Your task to perform on an android device: toggle data saver in the chrome app Image 0: 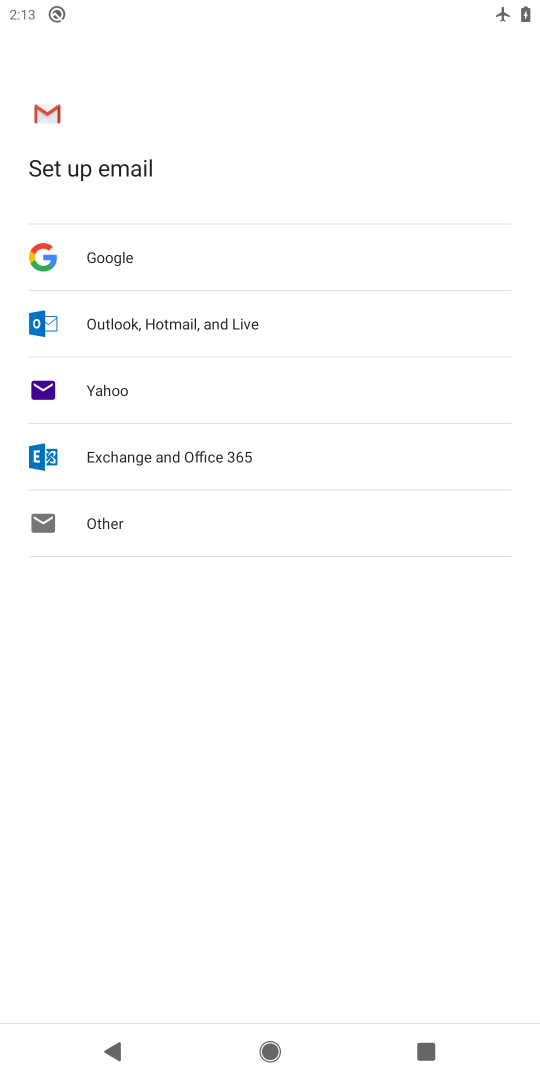
Step 0: press home button
Your task to perform on an android device: toggle data saver in the chrome app Image 1: 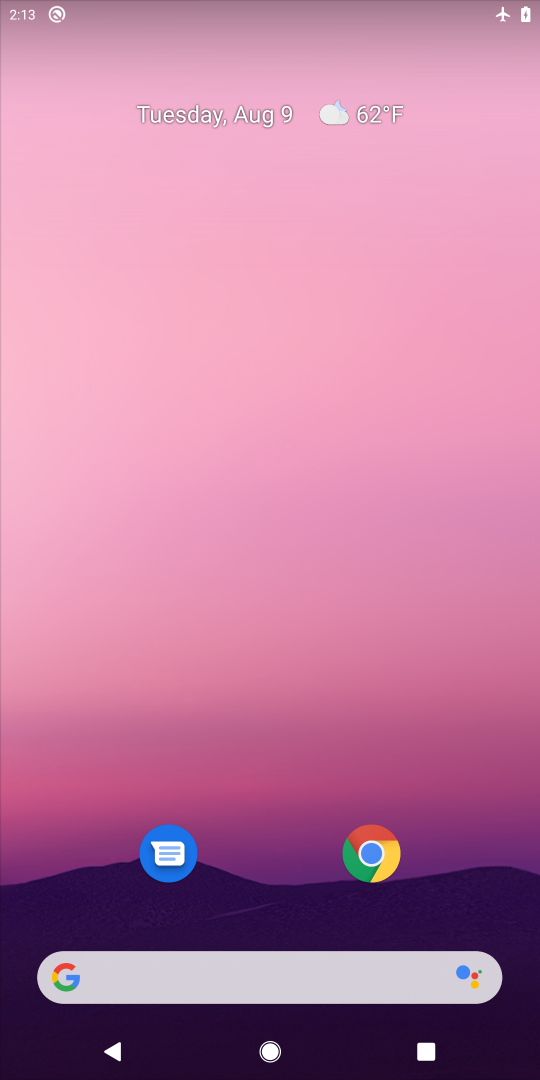
Step 1: drag from (248, 839) to (211, 242)
Your task to perform on an android device: toggle data saver in the chrome app Image 2: 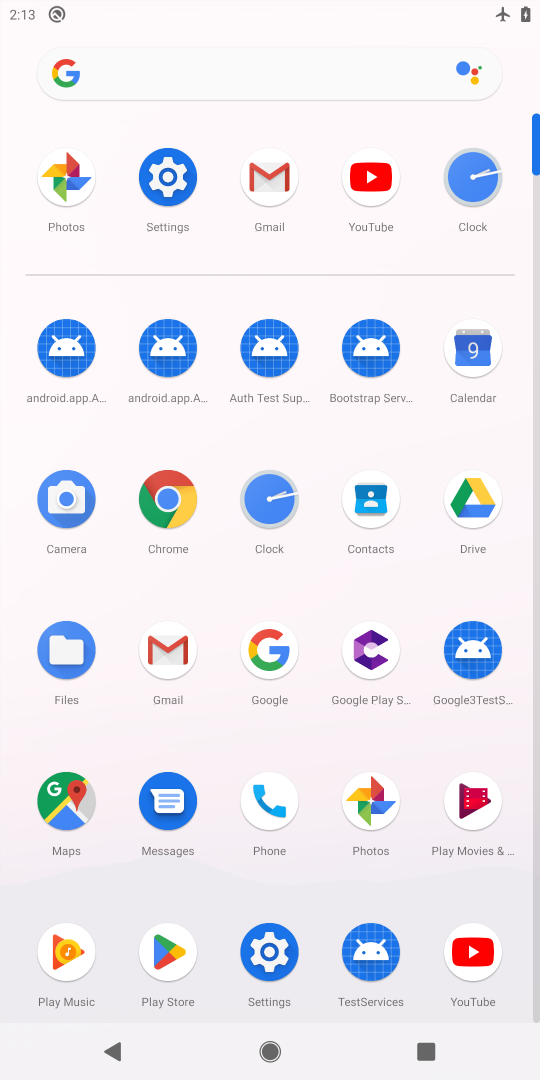
Step 2: click (156, 516)
Your task to perform on an android device: toggle data saver in the chrome app Image 3: 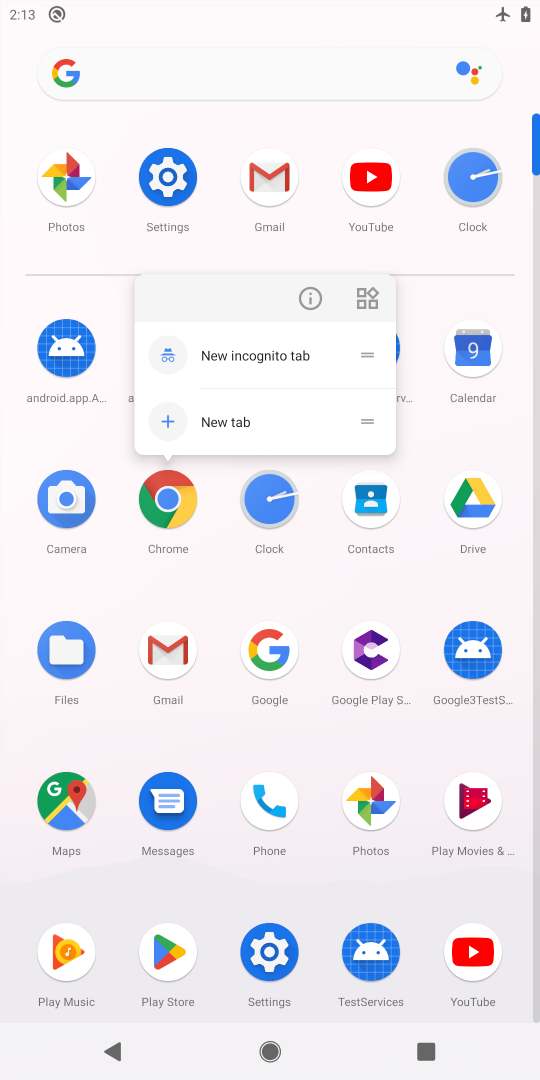
Step 3: click (157, 541)
Your task to perform on an android device: toggle data saver in the chrome app Image 4: 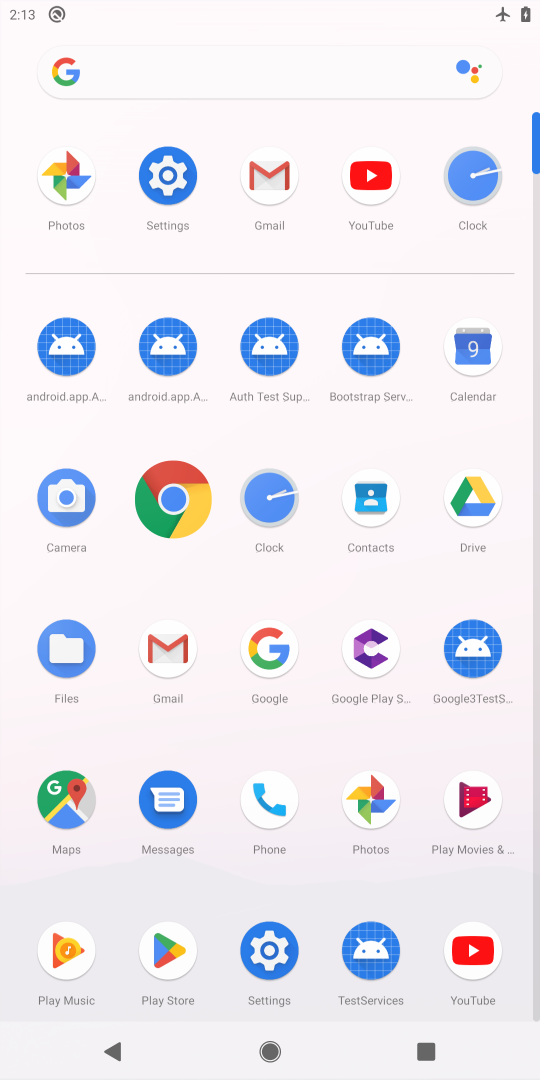
Step 4: click (155, 515)
Your task to perform on an android device: toggle data saver in the chrome app Image 5: 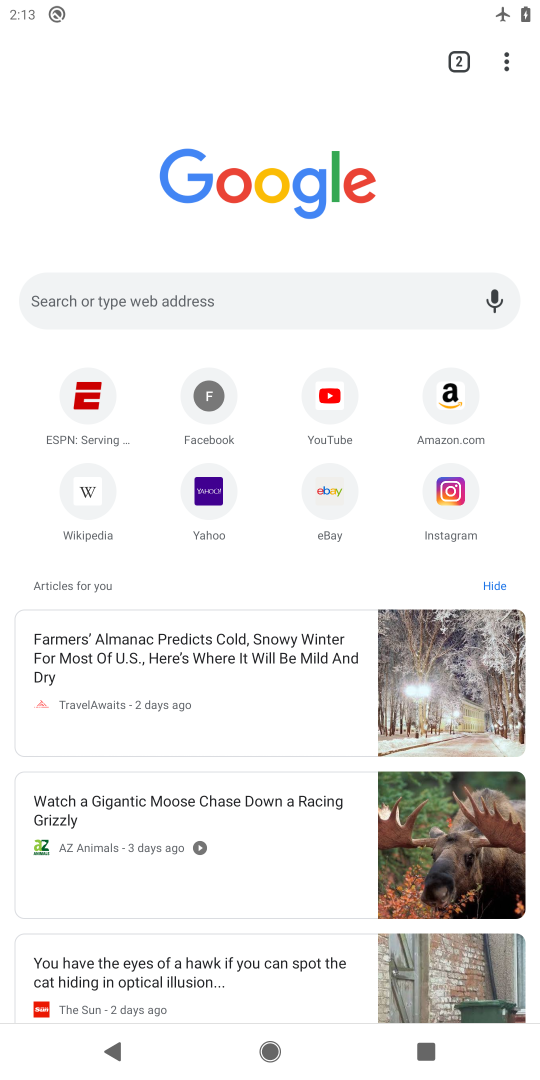
Step 5: click (148, 515)
Your task to perform on an android device: toggle data saver in the chrome app Image 6: 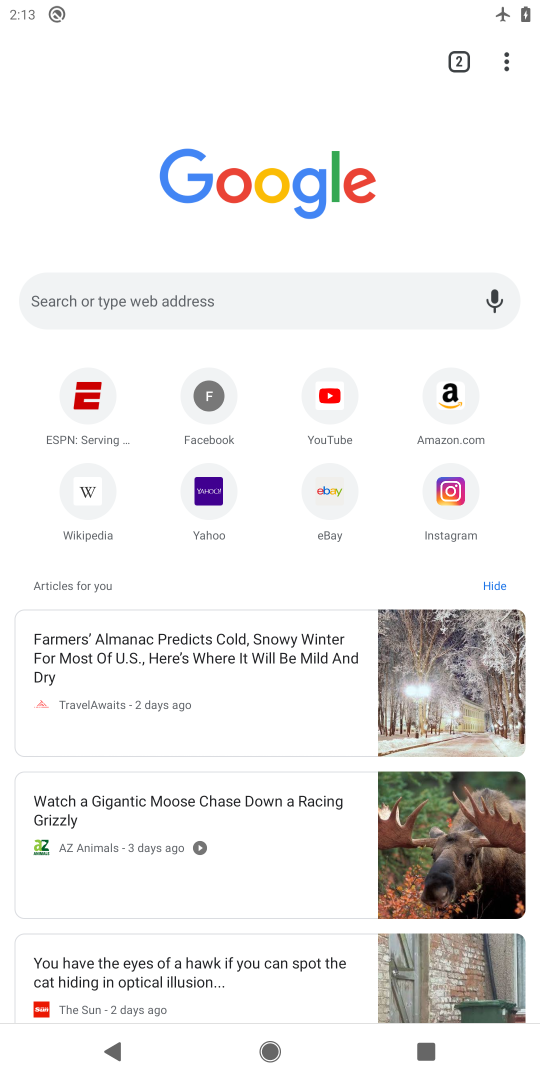
Step 6: drag from (504, 45) to (284, 579)
Your task to perform on an android device: toggle data saver in the chrome app Image 7: 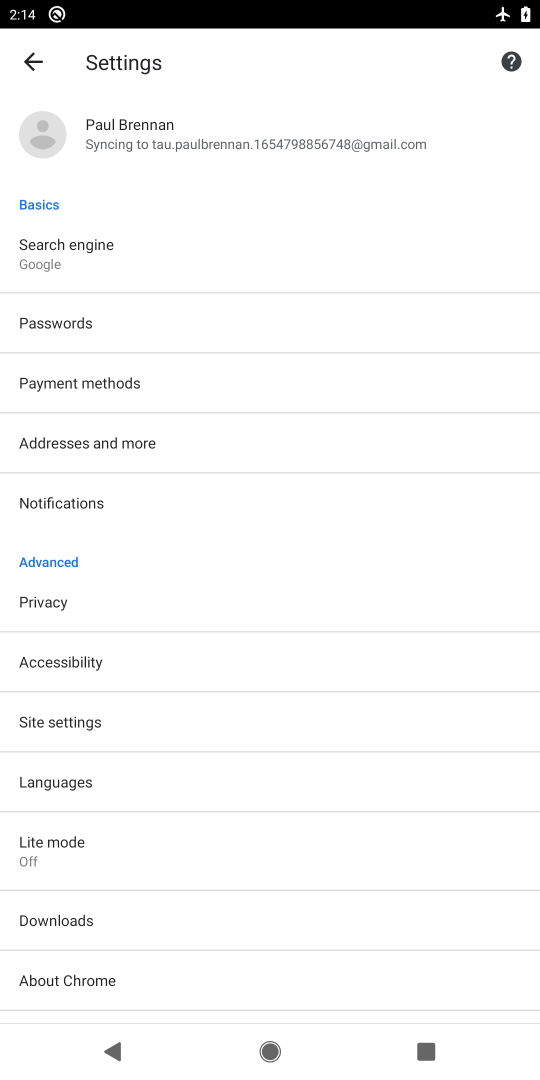
Step 7: click (64, 856)
Your task to perform on an android device: toggle data saver in the chrome app Image 8: 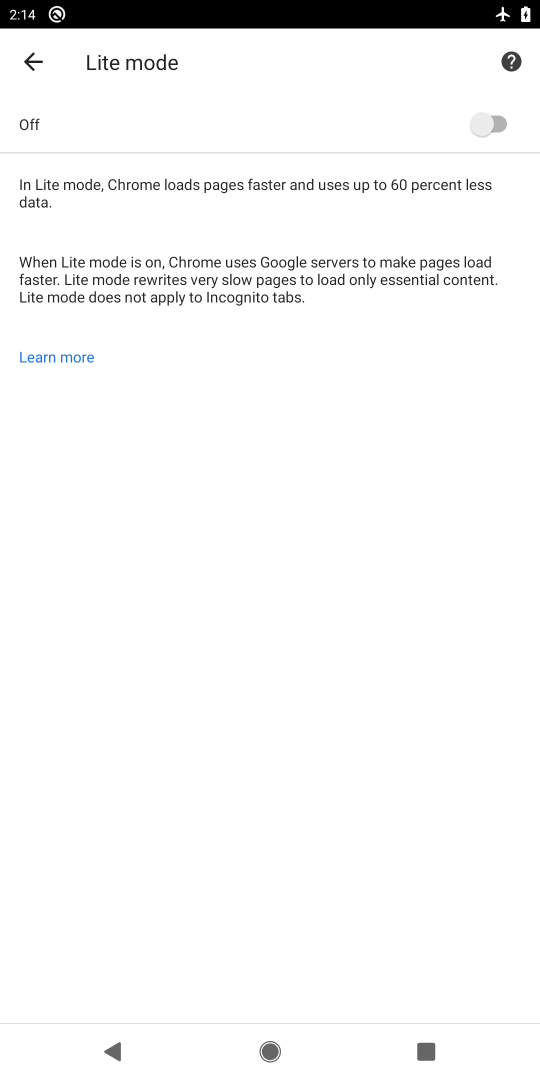
Step 8: click (486, 126)
Your task to perform on an android device: toggle data saver in the chrome app Image 9: 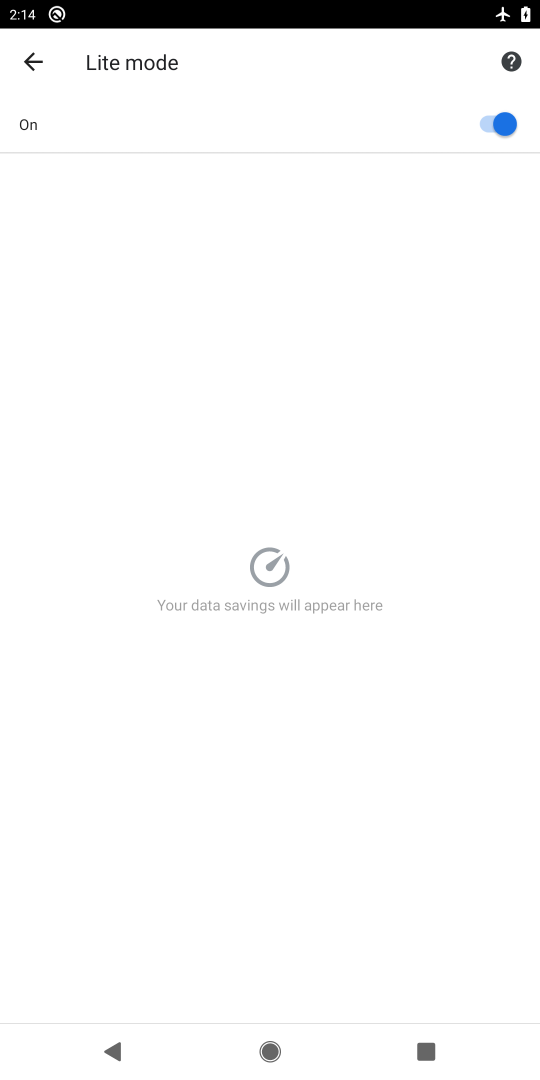
Step 9: task complete